Your task to perform on an android device: Turn on the flashlight Image 0: 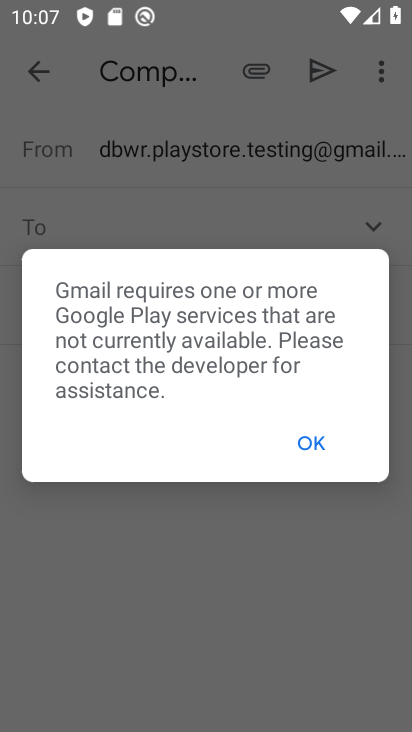
Step 0: press home button
Your task to perform on an android device: Turn on the flashlight Image 1: 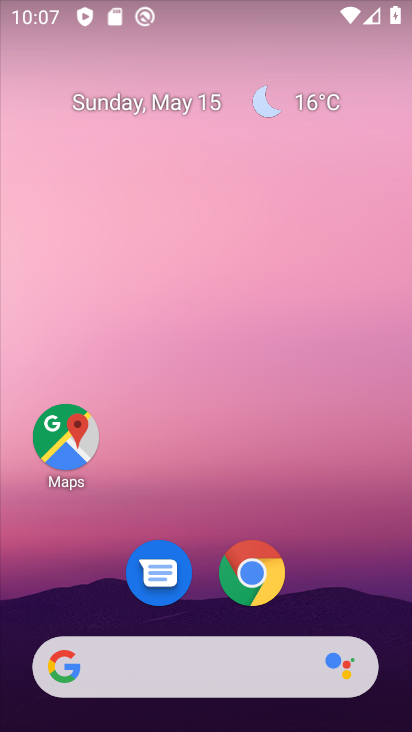
Step 1: drag from (318, 593) to (252, 134)
Your task to perform on an android device: Turn on the flashlight Image 2: 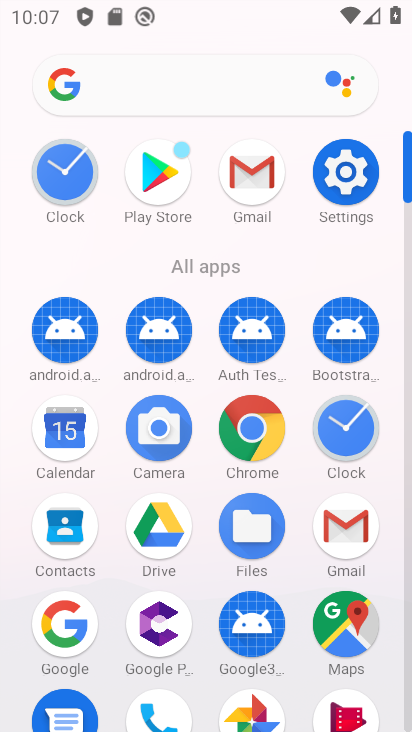
Step 2: click (334, 177)
Your task to perform on an android device: Turn on the flashlight Image 3: 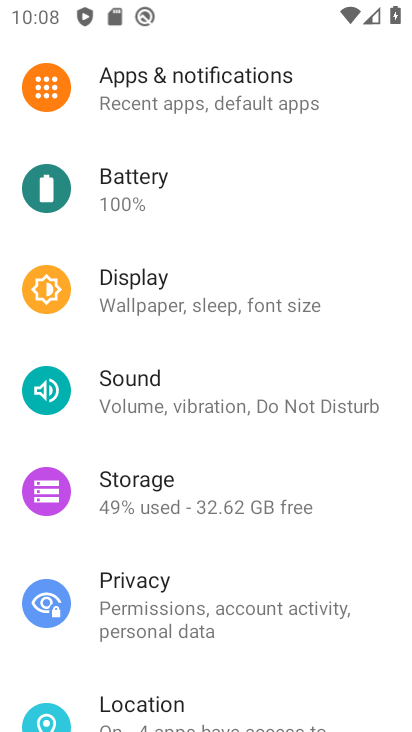
Step 3: task complete